Your task to perform on an android device: Open the web browser Image 0: 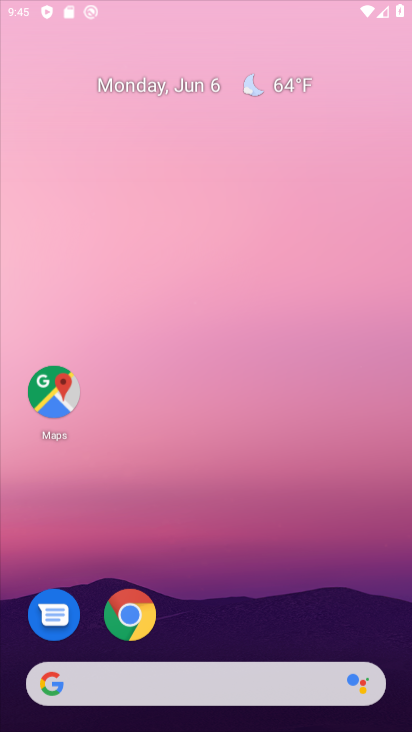
Step 0: drag from (259, 317) to (289, 65)
Your task to perform on an android device: Open the web browser Image 1: 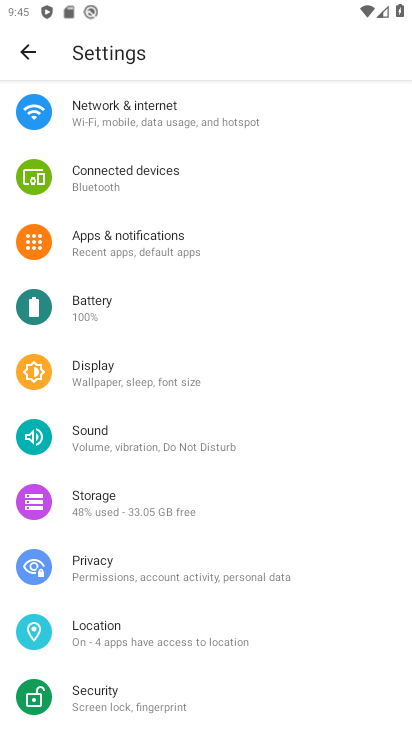
Step 1: press back button
Your task to perform on an android device: Open the web browser Image 2: 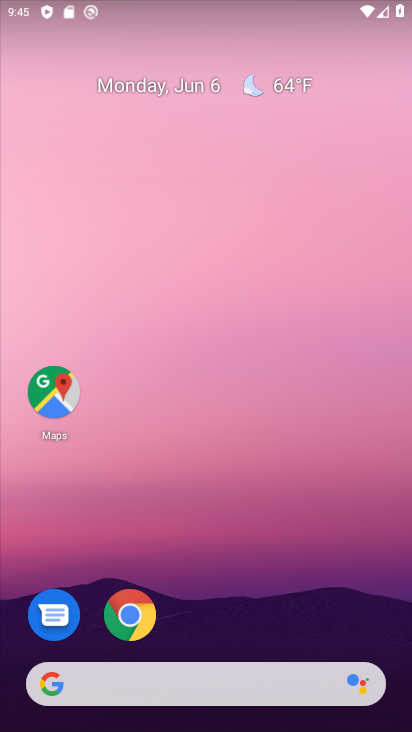
Step 2: click (141, 606)
Your task to perform on an android device: Open the web browser Image 3: 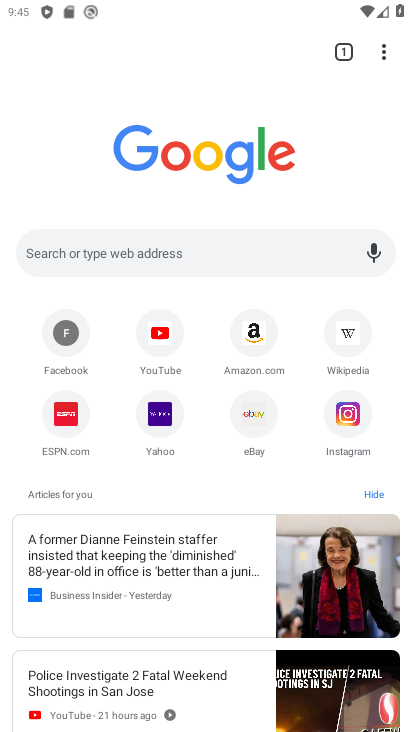
Step 3: task complete